Your task to perform on an android device: visit the assistant section in the google photos Image 0: 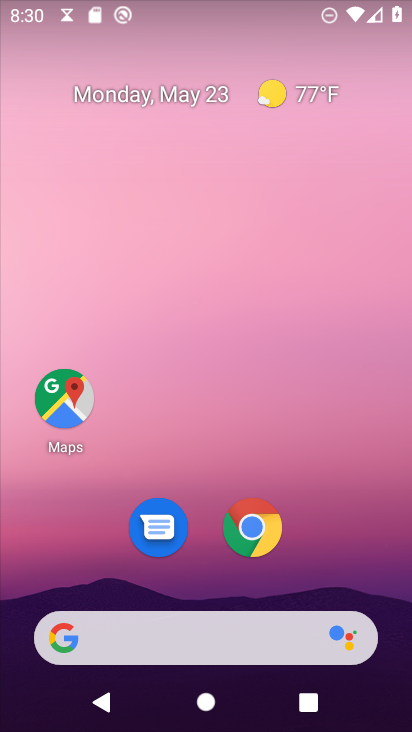
Step 0: drag from (255, 685) to (226, 231)
Your task to perform on an android device: visit the assistant section in the google photos Image 1: 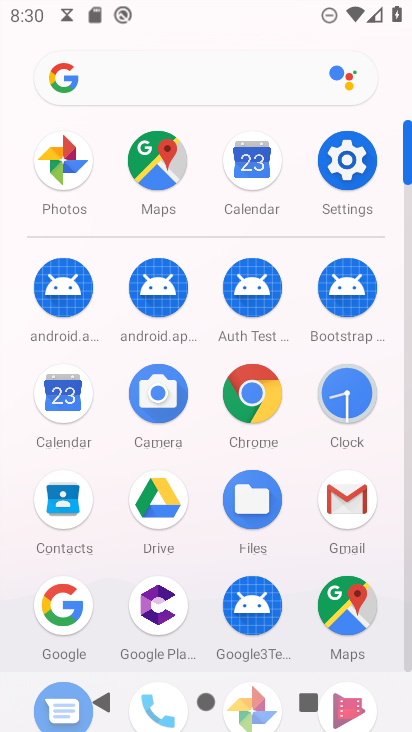
Step 1: drag from (198, 553) to (218, 414)
Your task to perform on an android device: visit the assistant section in the google photos Image 2: 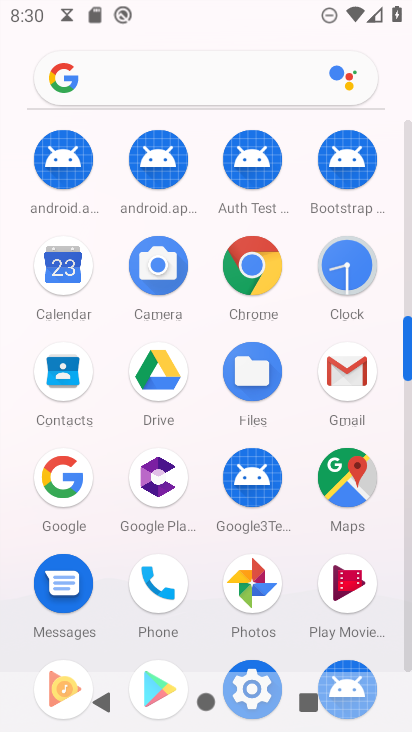
Step 2: click (256, 581)
Your task to perform on an android device: visit the assistant section in the google photos Image 3: 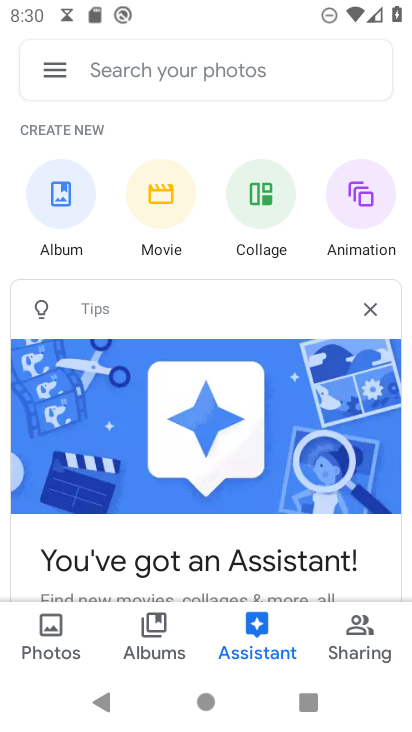
Step 3: click (262, 628)
Your task to perform on an android device: visit the assistant section in the google photos Image 4: 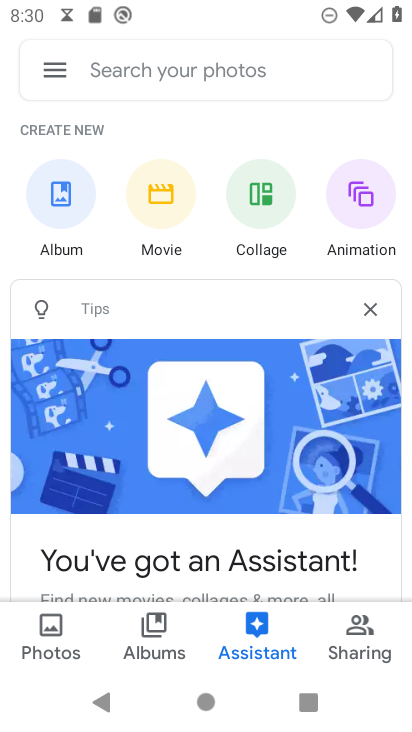
Step 4: task complete